Your task to perform on an android device: turn on notifications settings in the gmail app Image 0: 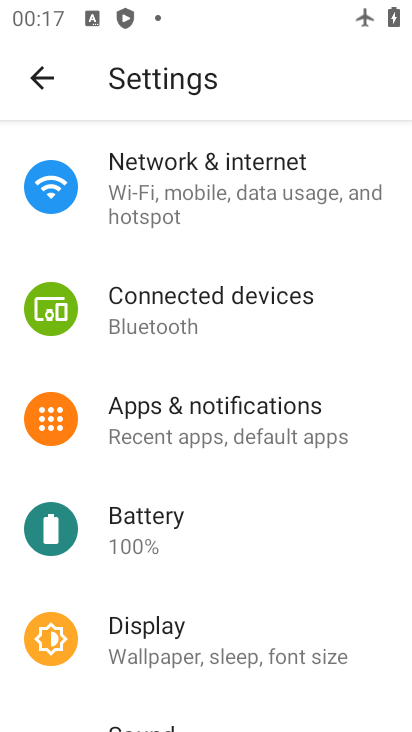
Step 0: press home button
Your task to perform on an android device: turn on notifications settings in the gmail app Image 1: 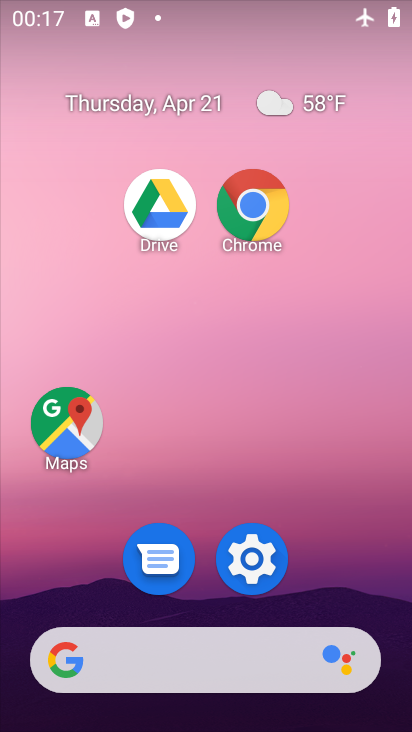
Step 1: drag from (337, 570) to (302, 47)
Your task to perform on an android device: turn on notifications settings in the gmail app Image 2: 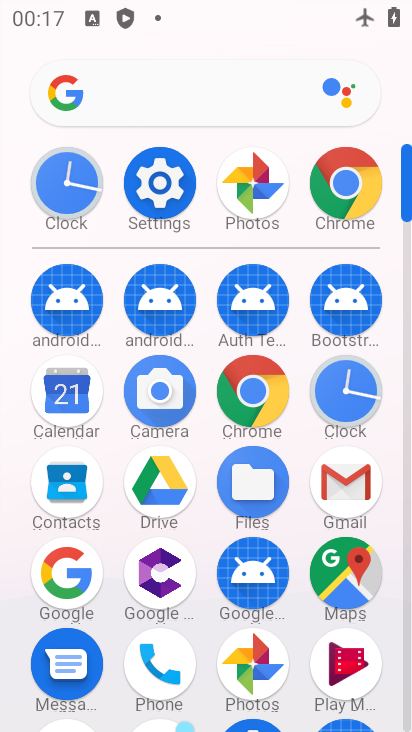
Step 2: click (343, 484)
Your task to perform on an android device: turn on notifications settings in the gmail app Image 3: 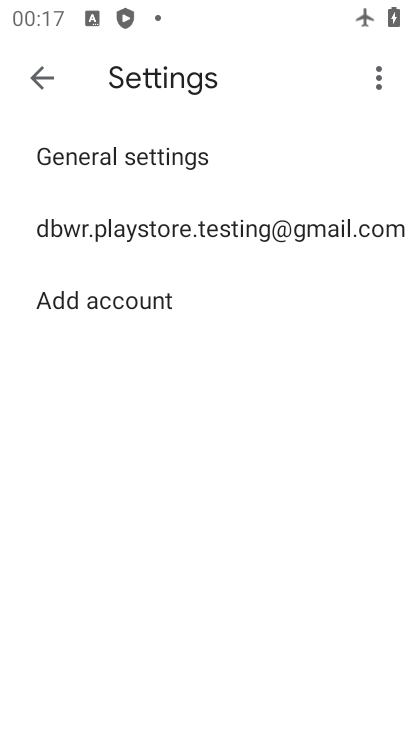
Step 3: click (280, 232)
Your task to perform on an android device: turn on notifications settings in the gmail app Image 4: 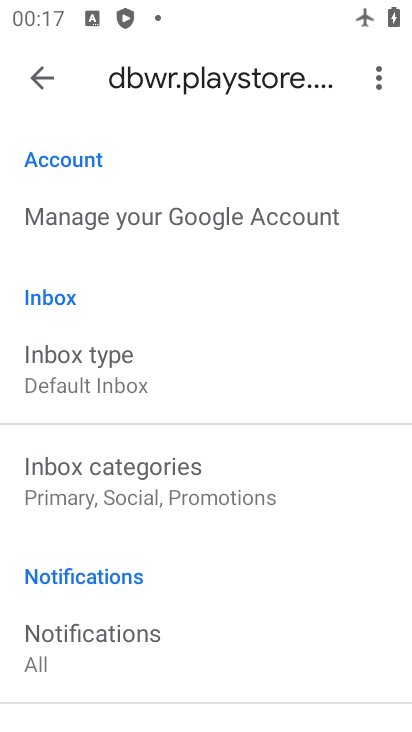
Step 4: drag from (194, 616) to (192, 731)
Your task to perform on an android device: turn on notifications settings in the gmail app Image 5: 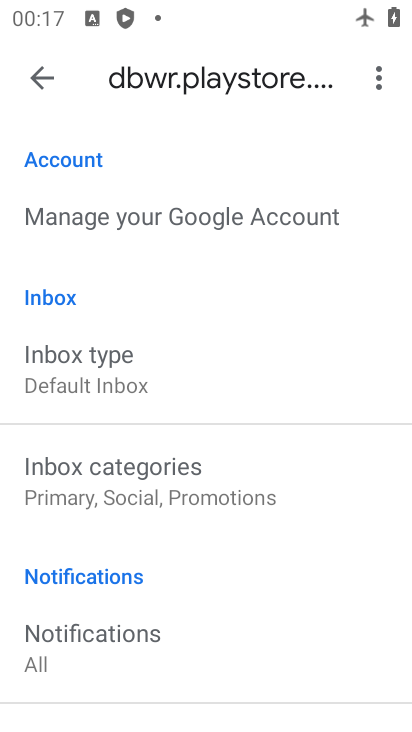
Step 5: drag from (255, 721) to (246, 302)
Your task to perform on an android device: turn on notifications settings in the gmail app Image 6: 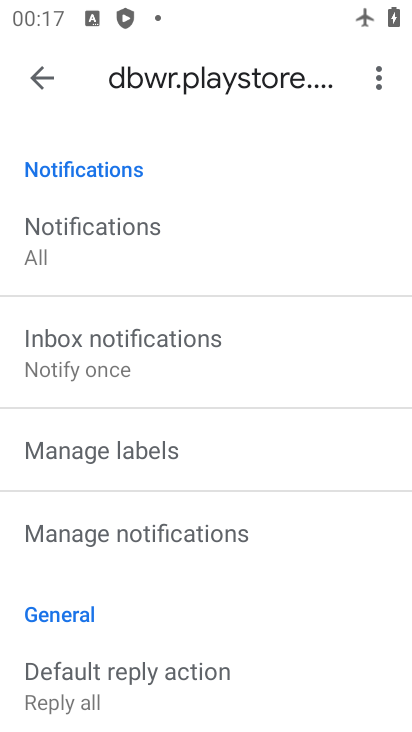
Step 6: click (169, 538)
Your task to perform on an android device: turn on notifications settings in the gmail app Image 7: 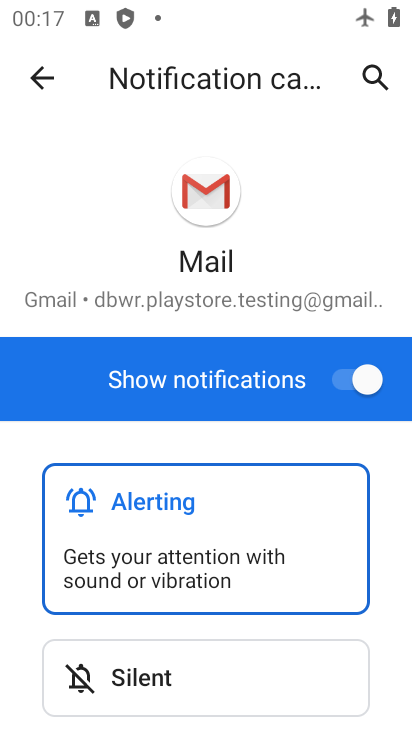
Step 7: task complete